Your task to perform on an android device: turn vacation reply on in the gmail app Image 0: 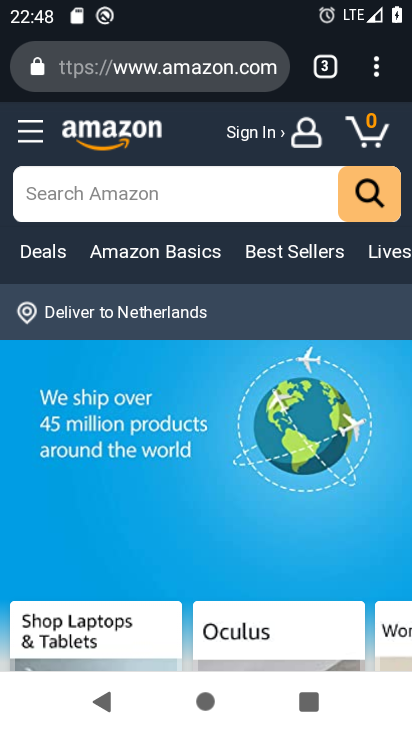
Step 0: press home button
Your task to perform on an android device: turn vacation reply on in the gmail app Image 1: 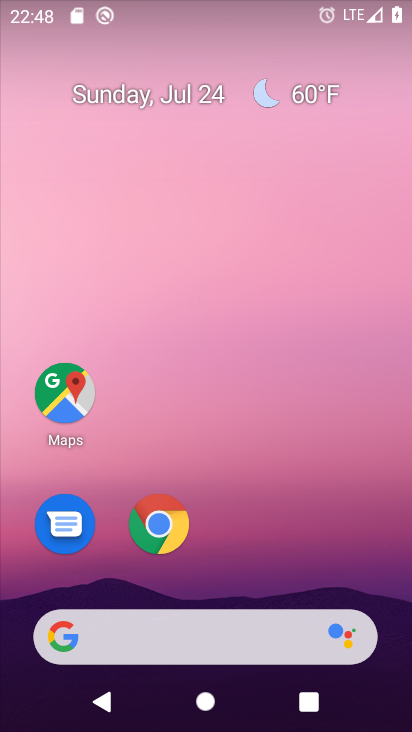
Step 1: drag from (270, 586) to (271, 395)
Your task to perform on an android device: turn vacation reply on in the gmail app Image 2: 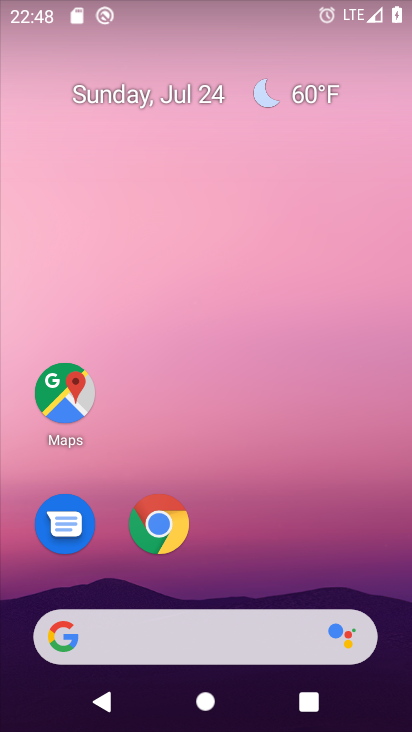
Step 2: drag from (307, 189) to (331, 49)
Your task to perform on an android device: turn vacation reply on in the gmail app Image 3: 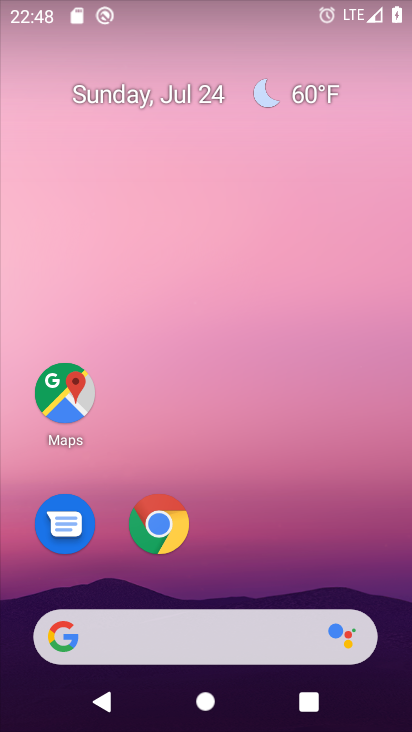
Step 3: drag from (239, 464) to (242, 17)
Your task to perform on an android device: turn vacation reply on in the gmail app Image 4: 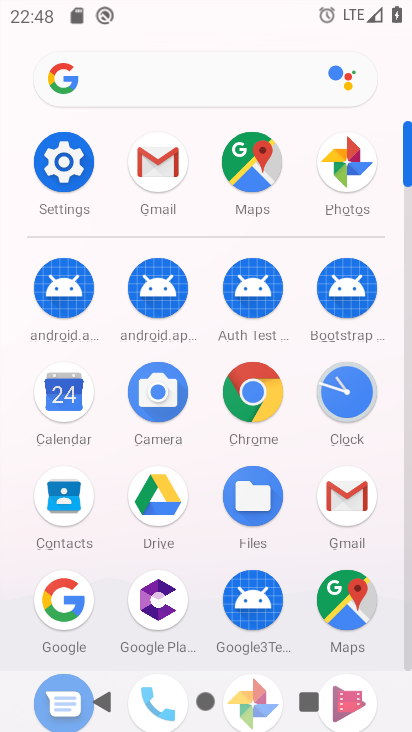
Step 4: click (154, 160)
Your task to perform on an android device: turn vacation reply on in the gmail app Image 5: 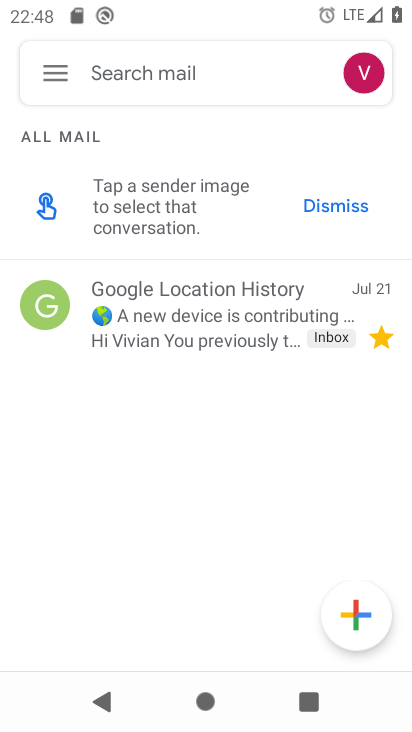
Step 5: click (51, 72)
Your task to perform on an android device: turn vacation reply on in the gmail app Image 6: 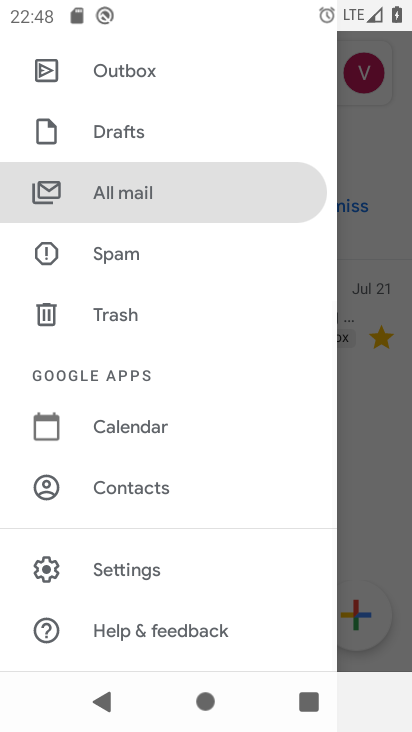
Step 6: click (121, 558)
Your task to perform on an android device: turn vacation reply on in the gmail app Image 7: 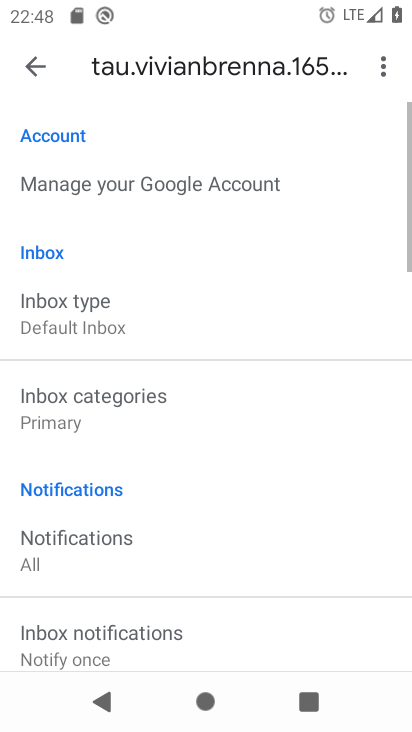
Step 7: drag from (256, 501) to (298, 147)
Your task to perform on an android device: turn vacation reply on in the gmail app Image 8: 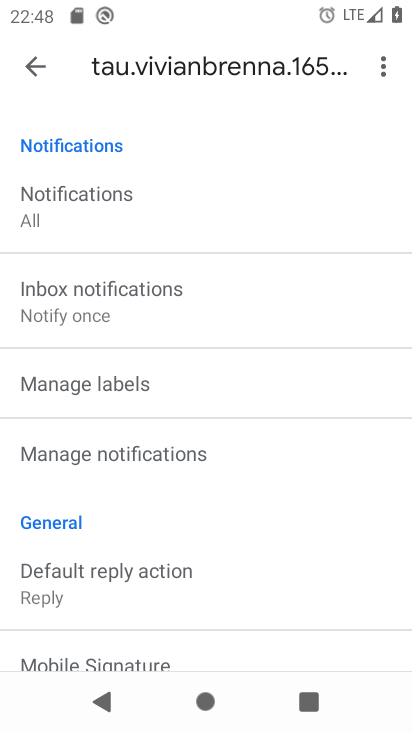
Step 8: drag from (281, 516) to (279, 81)
Your task to perform on an android device: turn vacation reply on in the gmail app Image 9: 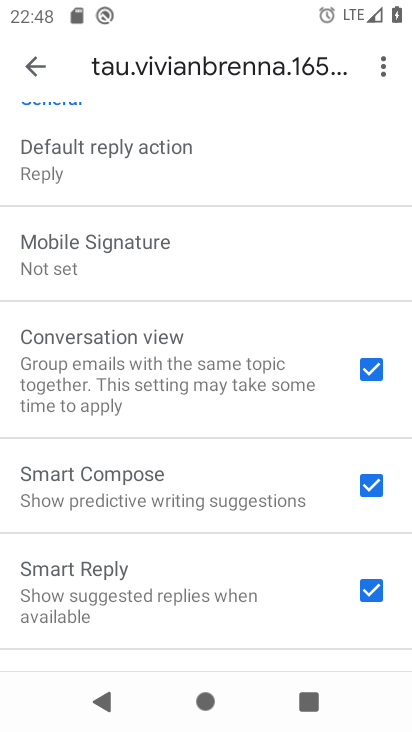
Step 9: drag from (211, 546) to (243, 145)
Your task to perform on an android device: turn vacation reply on in the gmail app Image 10: 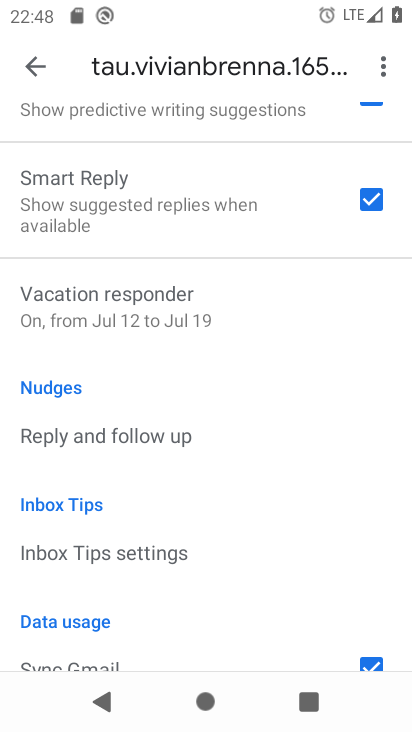
Step 10: click (187, 300)
Your task to perform on an android device: turn vacation reply on in the gmail app Image 11: 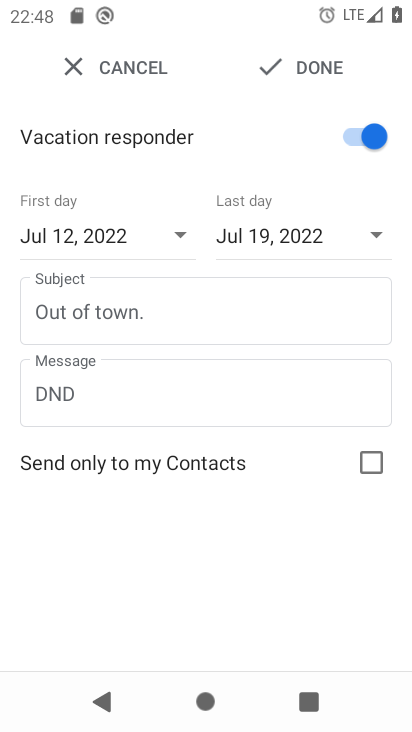
Step 11: task complete